Your task to perform on an android device: Open ESPN.com Image 0: 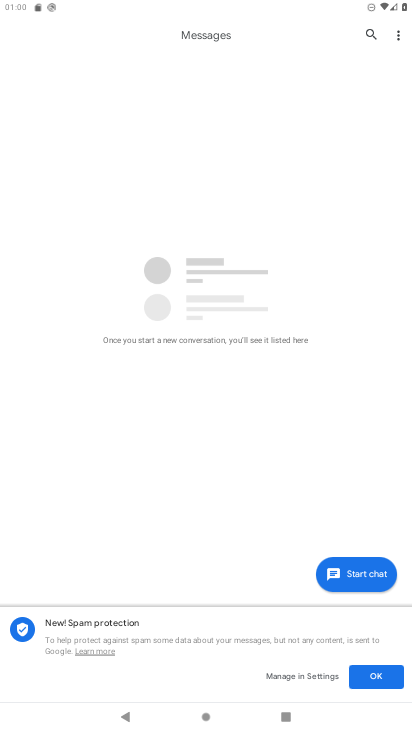
Step 0: press home button
Your task to perform on an android device: Open ESPN.com Image 1: 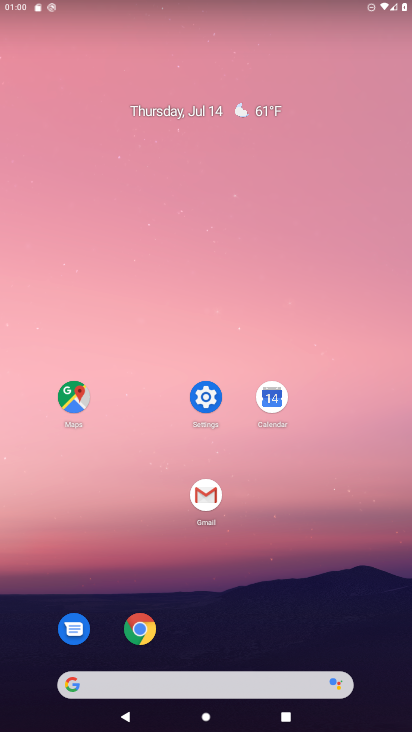
Step 1: click (145, 636)
Your task to perform on an android device: Open ESPN.com Image 2: 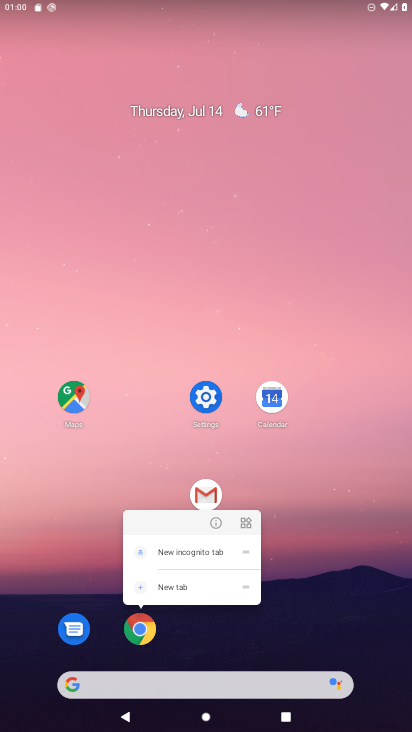
Step 2: click (147, 628)
Your task to perform on an android device: Open ESPN.com Image 3: 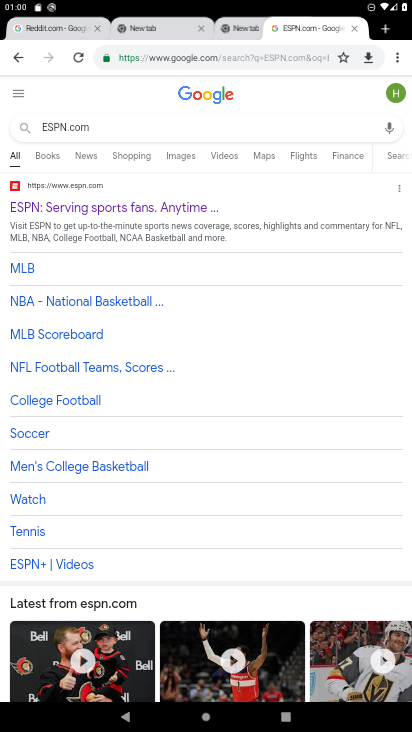
Step 3: task complete